Your task to perform on an android device: Open internet settings Image 0: 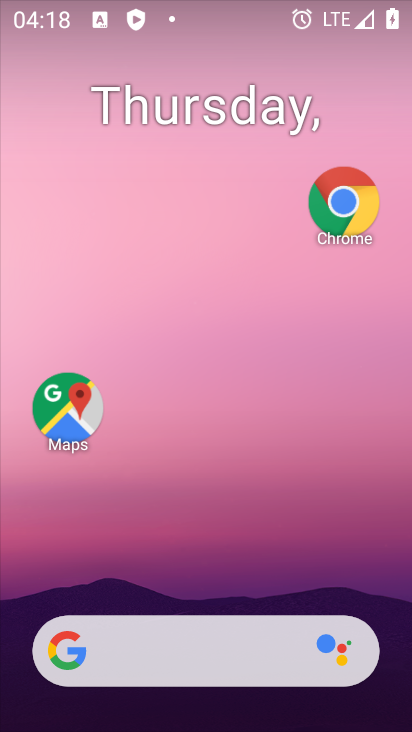
Step 0: drag from (238, 598) to (291, 48)
Your task to perform on an android device: Open internet settings Image 1: 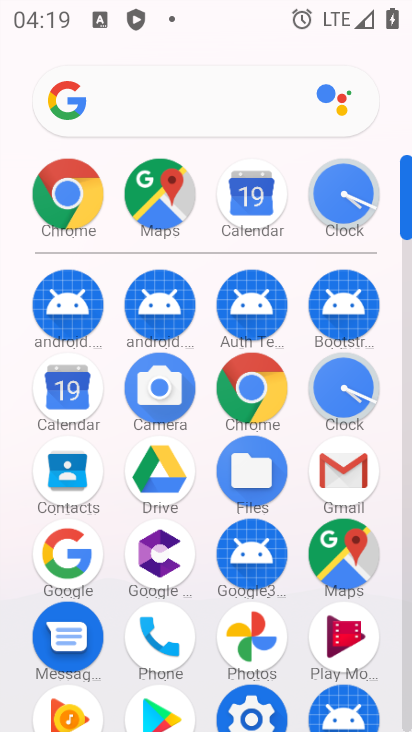
Step 1: click (252, 716)
Your task to perform on an android device: Open internet settings Image 2: 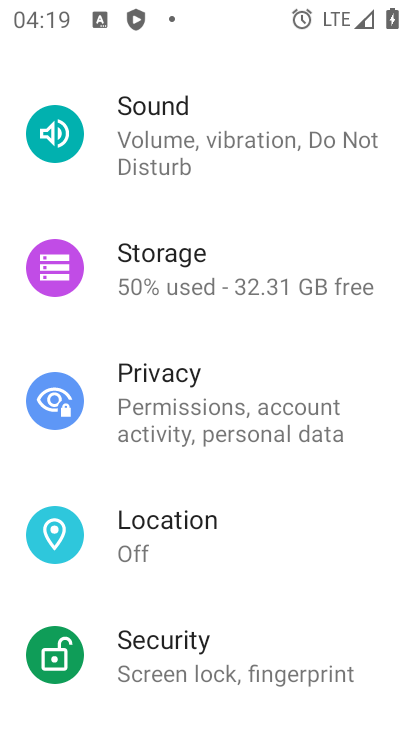
Step 2: drag from (309, 163) to (262, 660)
Your task to perform on an android device: Open internet settings Image 3: 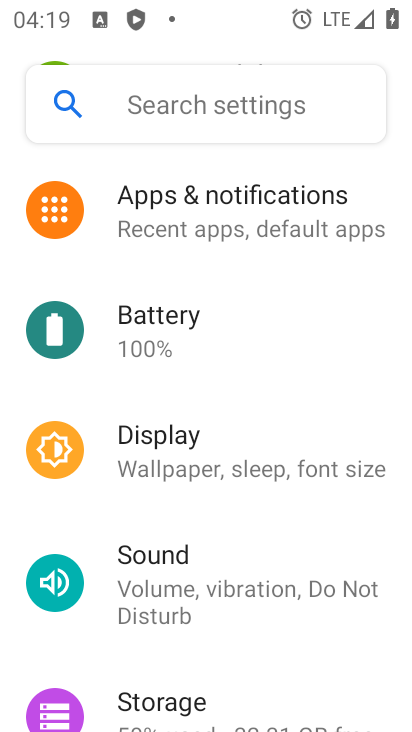
Step 3: click (266, 231)
Your task to perform on an android device: Open internet settings Image 4: 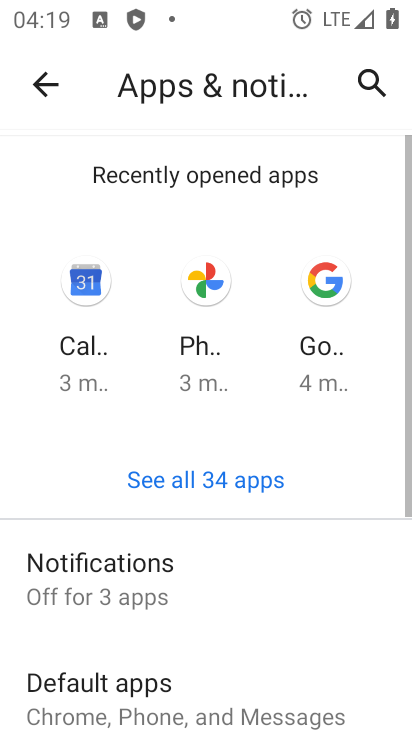
Step 4: press back button
Your task to perform on an android device: Open internet settings Image 5: 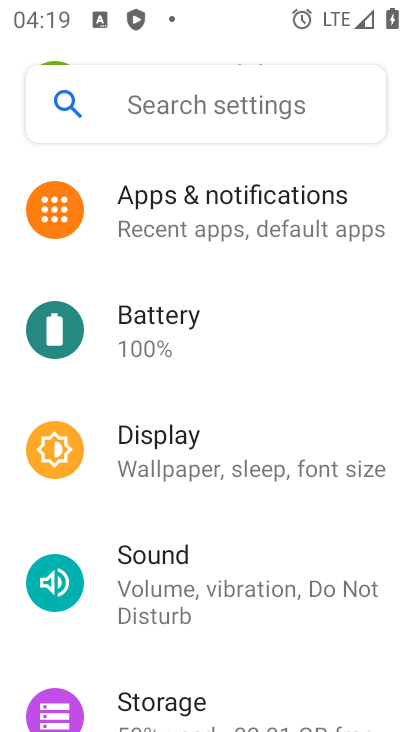
Step 5: drag from (291, 220) to (278, 696)
Your task to perform on an android device: Open internet settings Image 6: 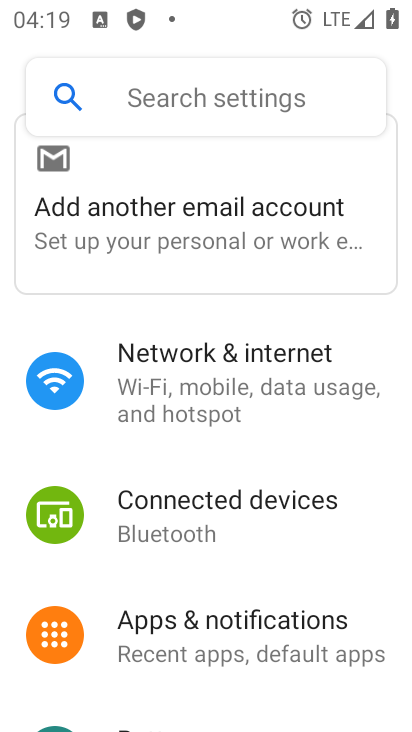
Step 6: click (266, 381)
Your task to perform on an android device: Open internet settings Image 7: 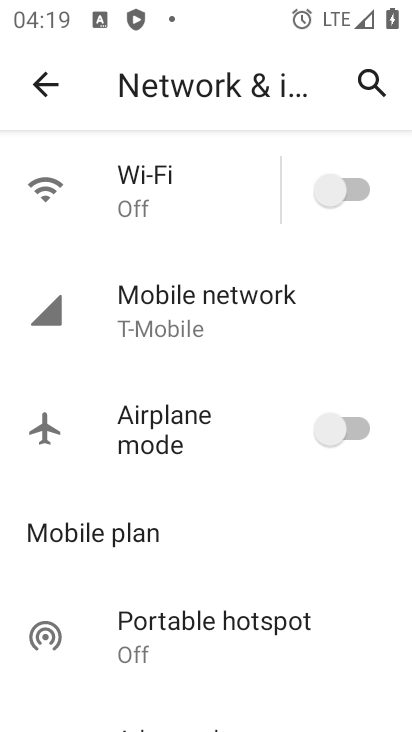
Step 7: click (163, 177)
Your task to perform on an android device: Open internet settings Image 8: 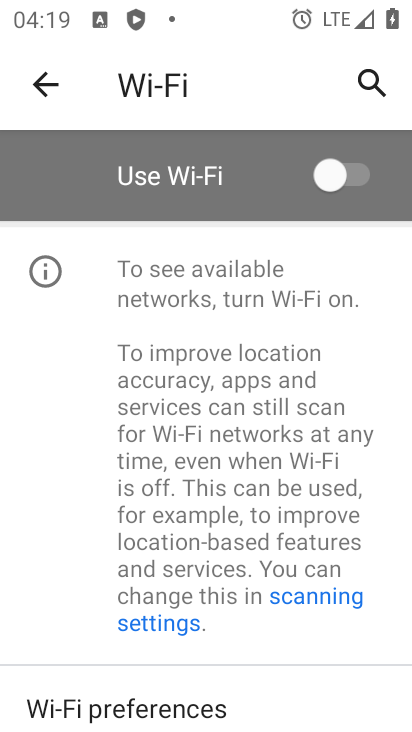
Step 8: task complete